Your task to perform on an android device: read, delete, or share a saved page in the chrome app Image 0: 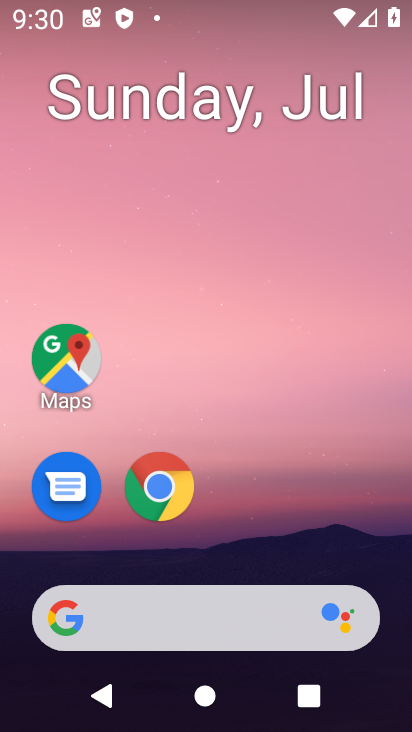
Step 0: press home button
Your task to perform on an android device: read, delete, or share a saved page in the chrome app Image 1: 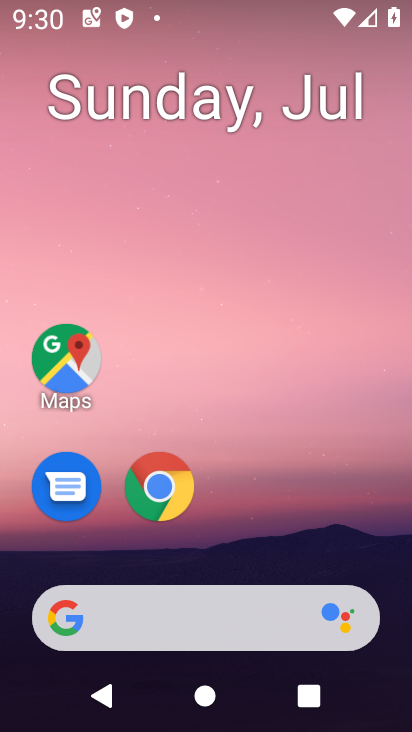
Step 1: drag from (367, 512) to (366, 65)
Your task to perform on an android device: read, delete, or share a saved page in the chrome app Image 2: 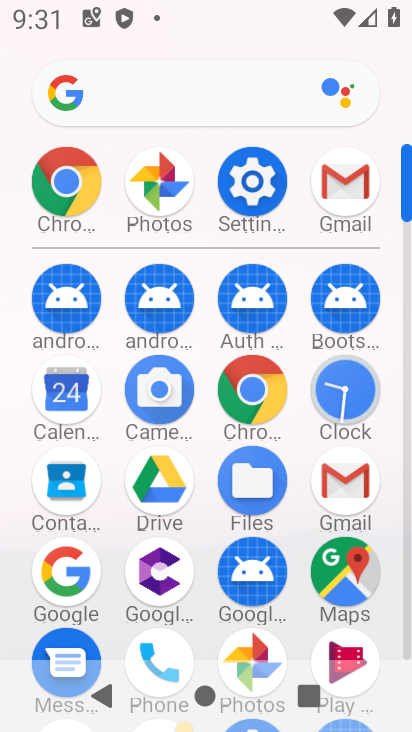
Step 2: click (261, 393)
Your task to perform on an android device: read, delete, or share a saved page in the chrome app Image 3: 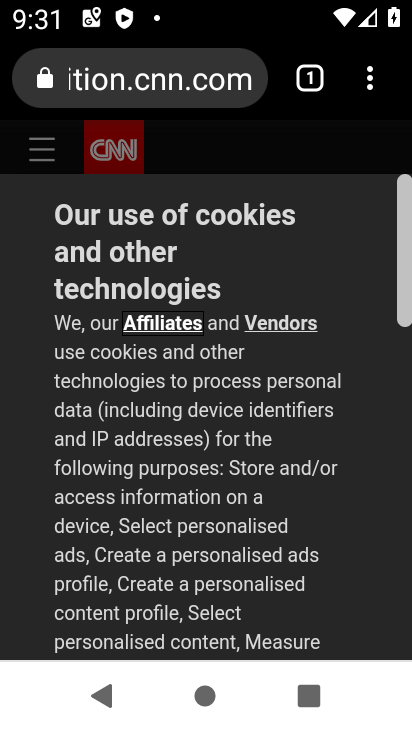
Step 3: click (371, 86)
Your task to perform on an android device: read, delete, or share a saved page in the chrome app Image 4: 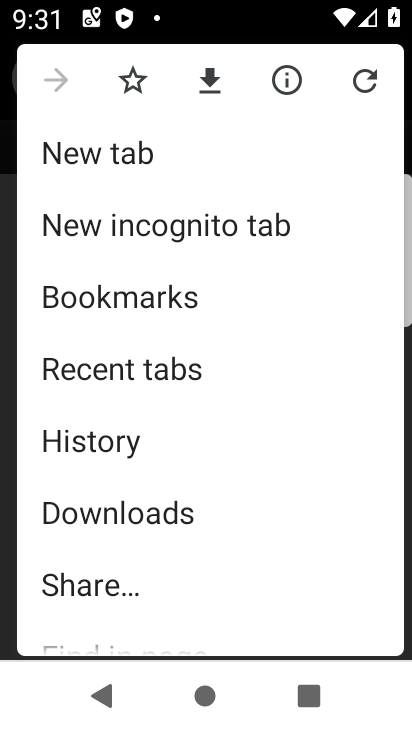
Step 4: click (174, 514)
Your task to perform on an android device: read, delete, or share a saved page in the chrome app Image 5: 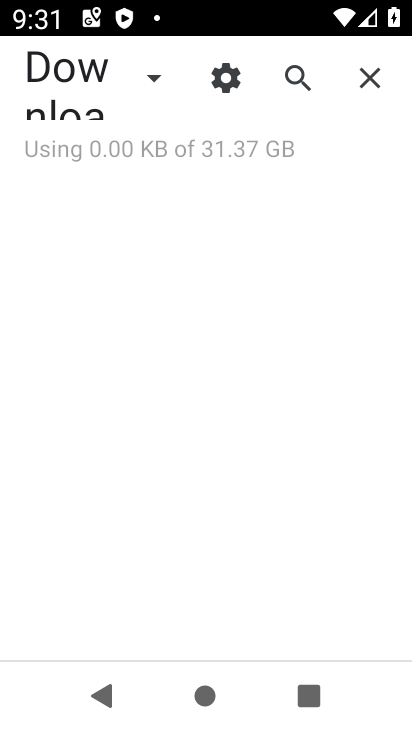
Step 5: click (149, 68)
Your task to perform on an android device: read, delete, or share a saved page in the chrome app Image 6: 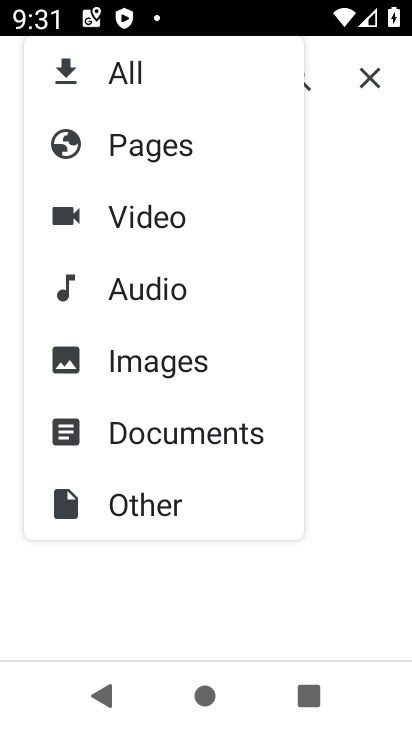
Step 6: click (142, 143)
Your task to perform on an android device: read, delete, or share a saved page in the chrome app Image 7: 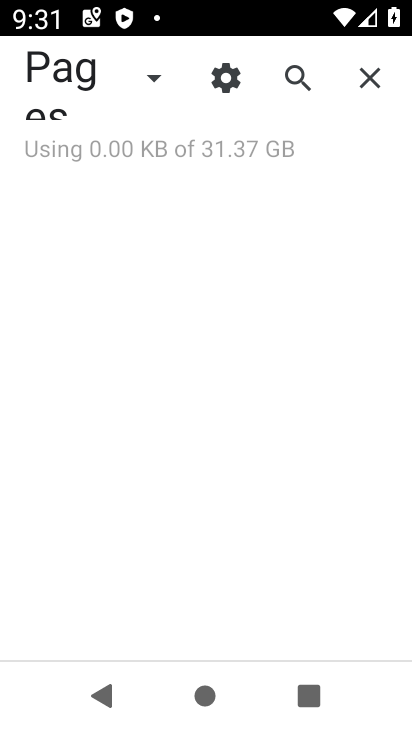
Step 7: task complete